Your task to perform on an android device: Check the news Image 0: 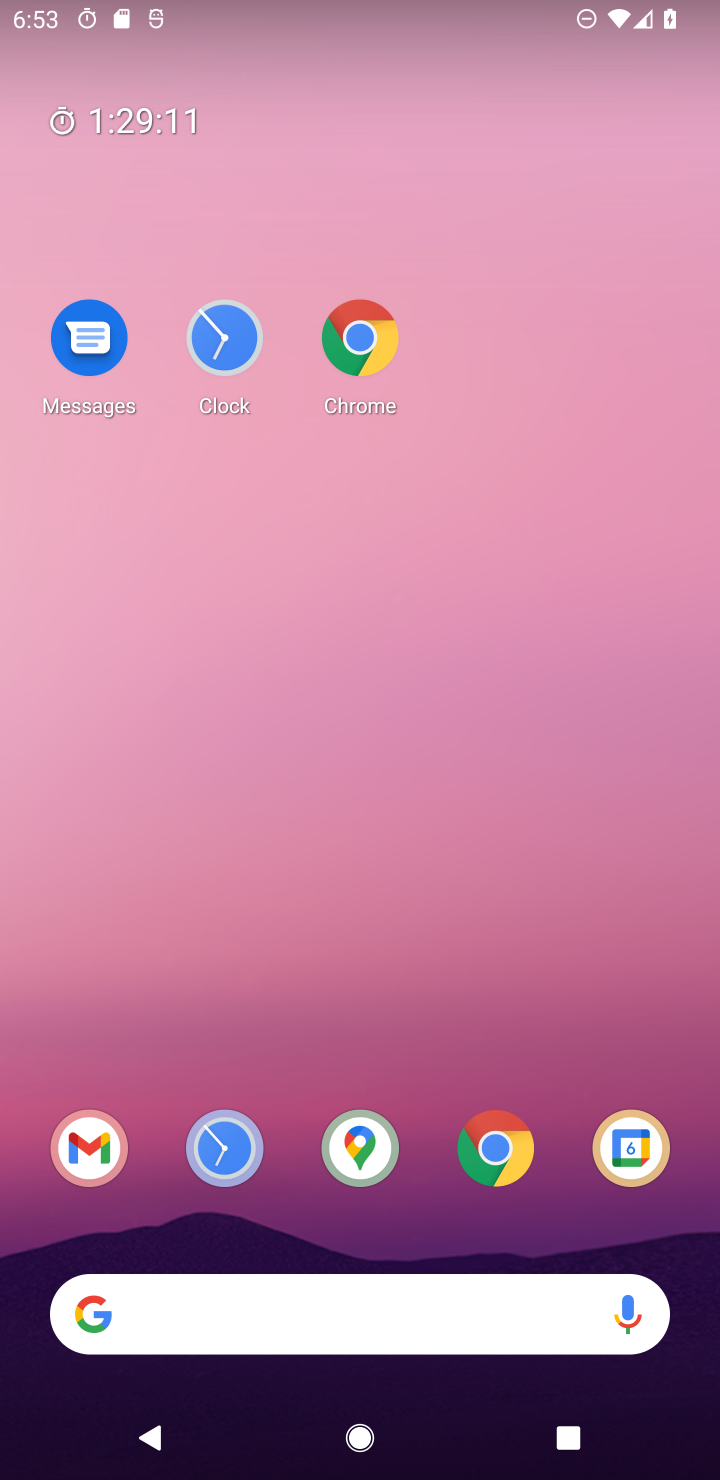
Step 0: drag from (451, 688) to (524, 310)
Your task to perform on an android device: Check the news Image 1: 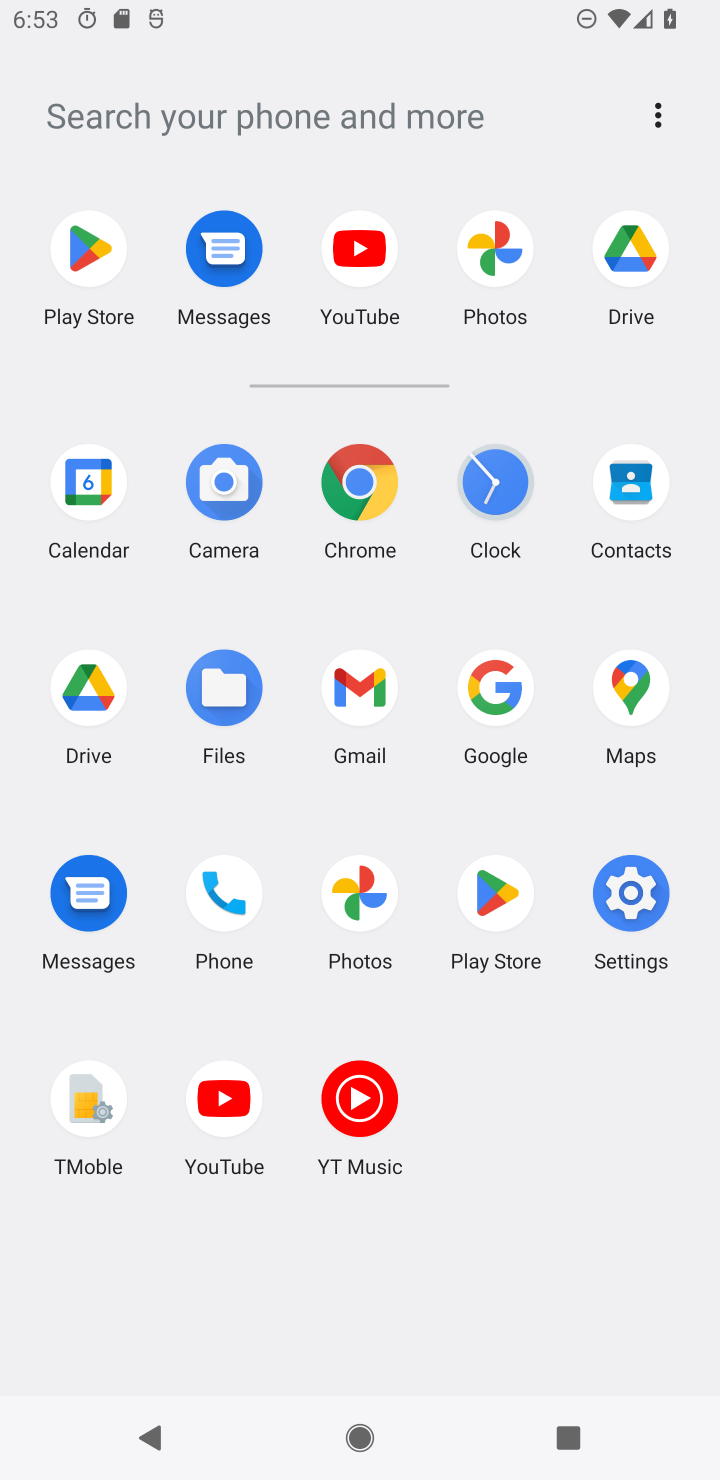
Step 1: click (237, 130)
Your task to perform on an android device: Check the news Image 2: 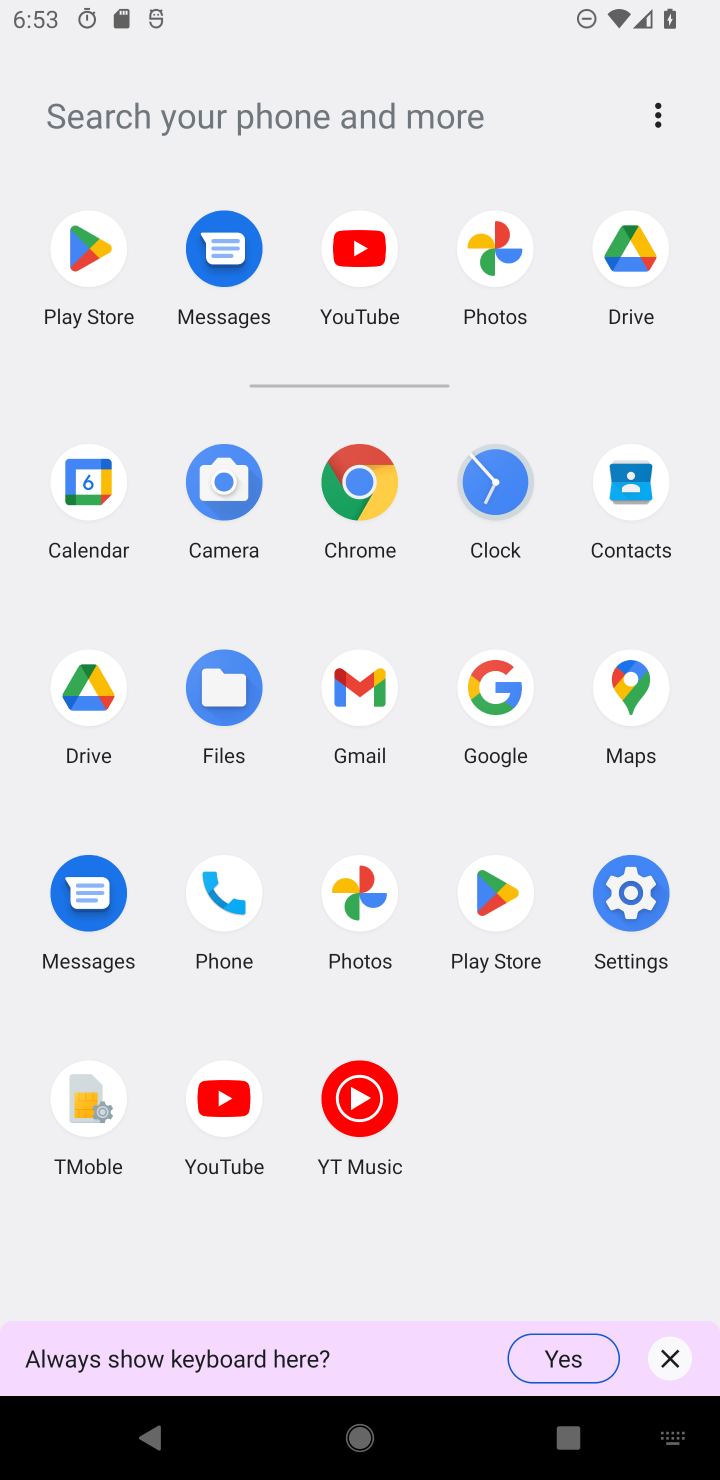
Step 2: type "news"
Your task to perform on an android device: Check the news Image 3: 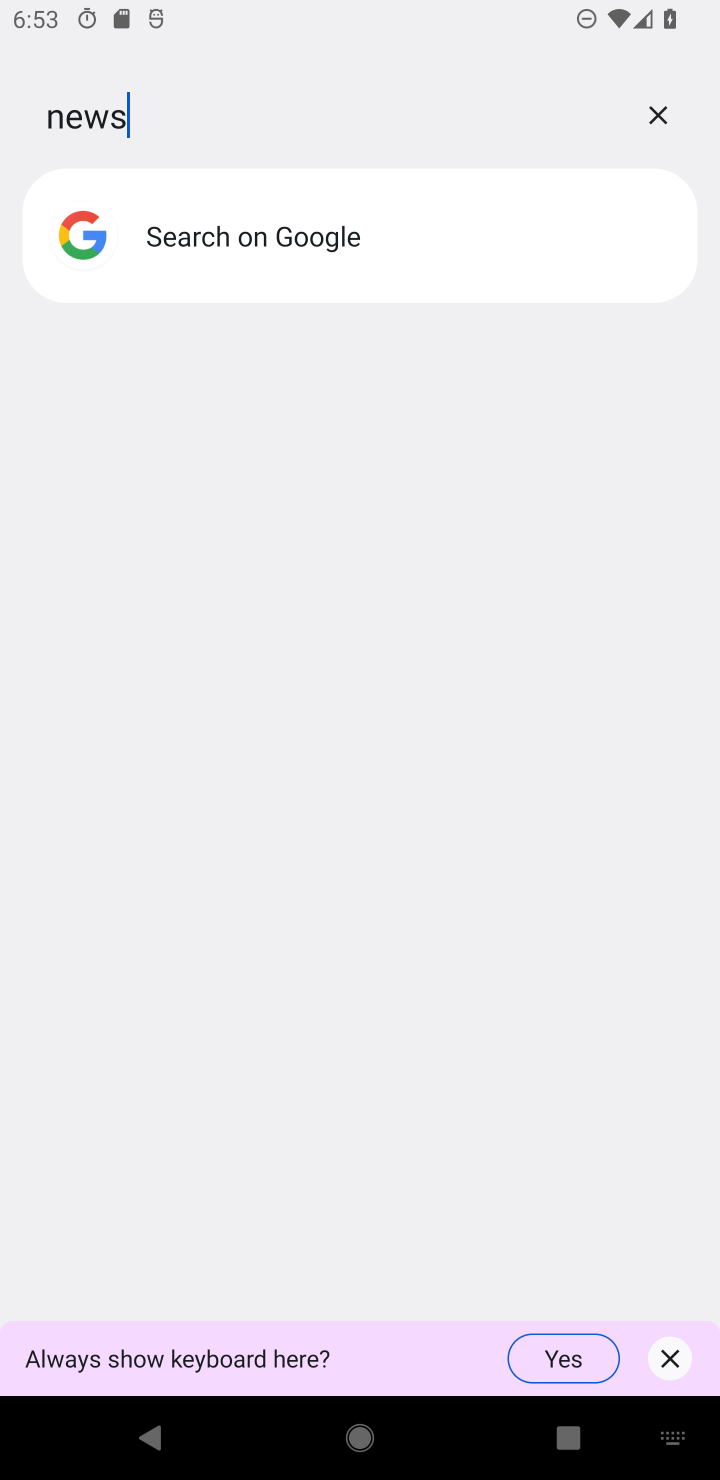
Step 3: click (174, 247)
Your task to perform on an android device: Check the news Image 4: 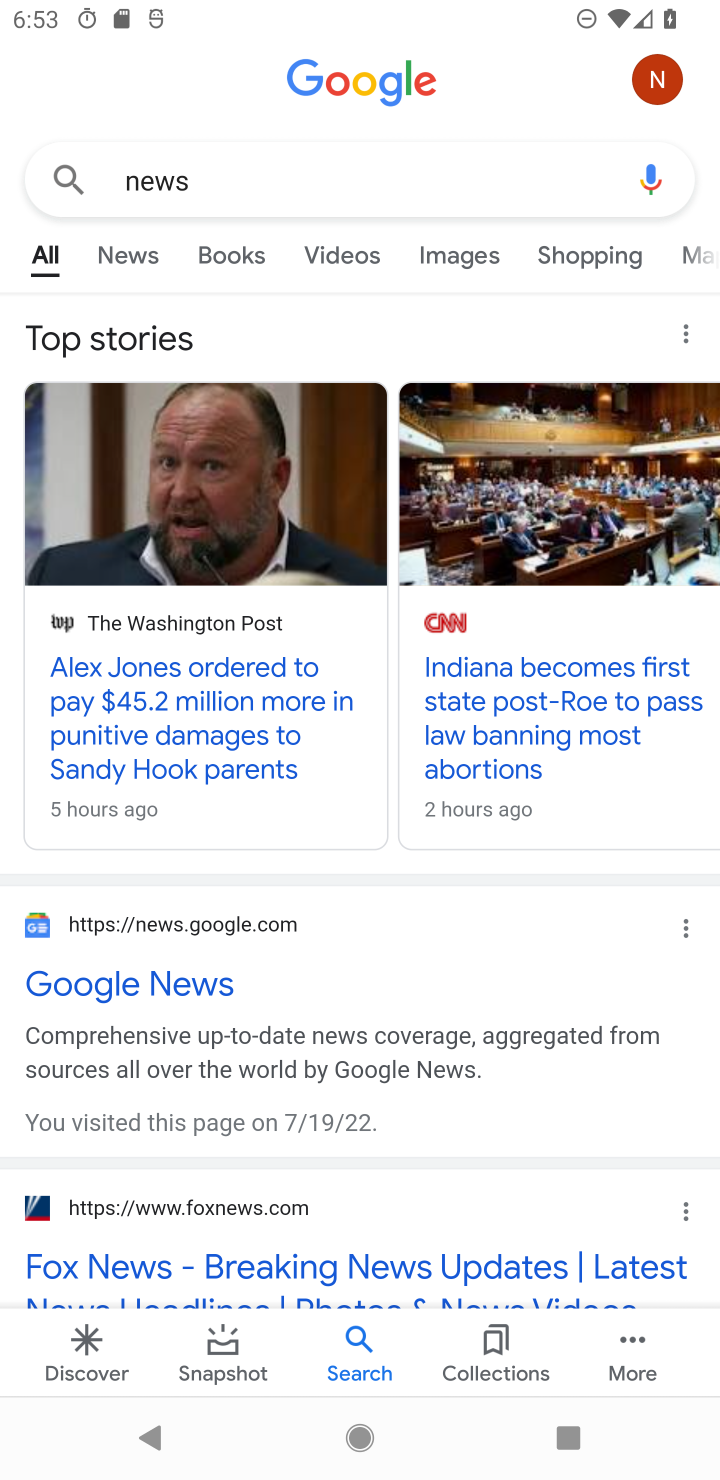
Step 4: task complete